Your task to perform on an android device: Turn on the flashlight Image 0: 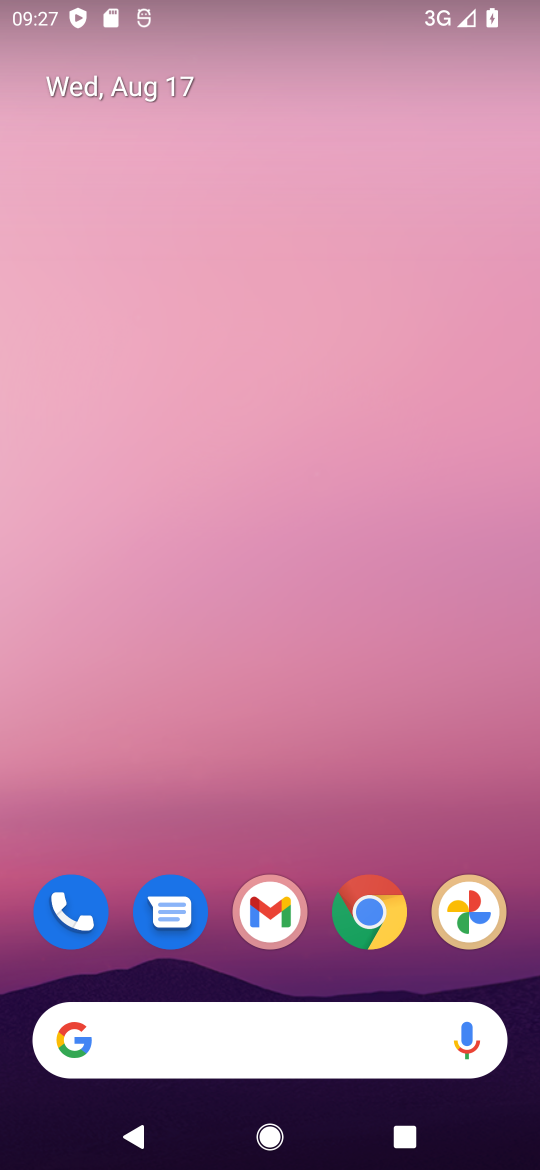
Step 0: drag from (255, 9) to (196, 663)
Your task to perform on an android device: Turn on the flashlight Image 1: 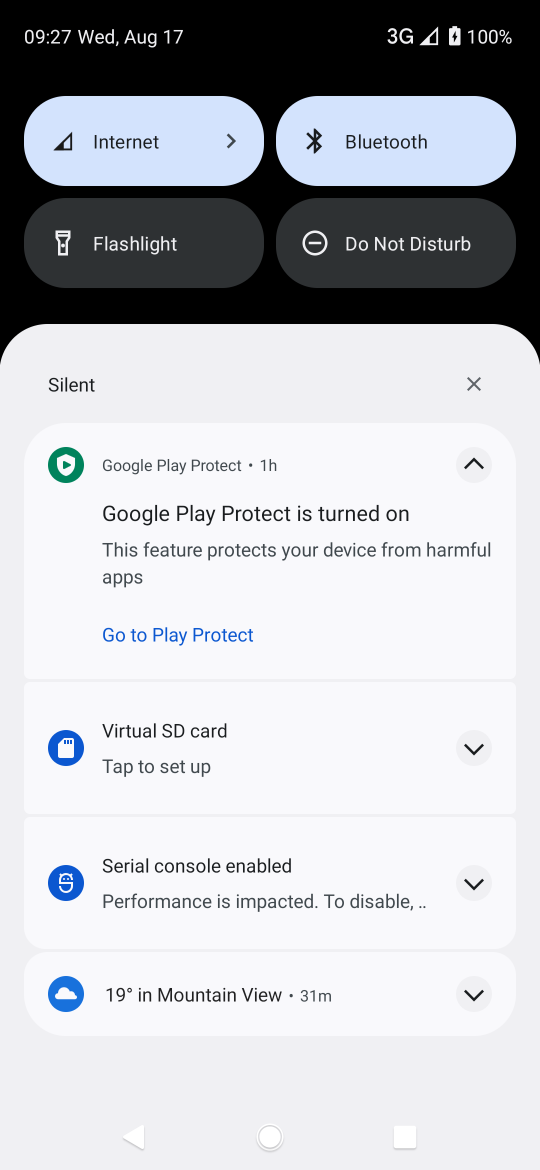
Step 1: task complete